Your task to perform on an android device: stop showing notifications on the lock screen Image 0: 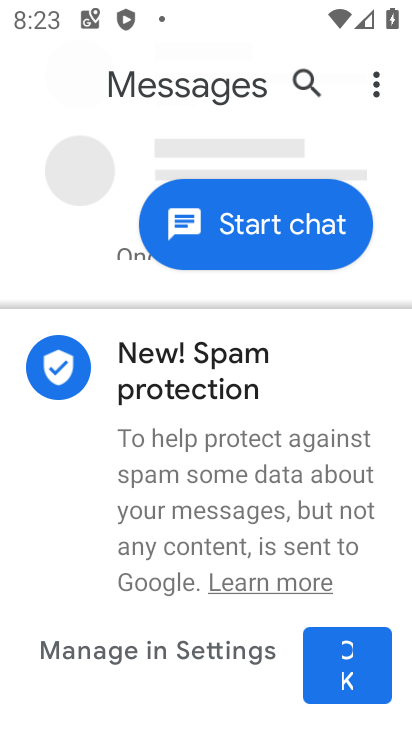
Step 0: press home button
Your task to perform on an android device: stop showing notifications on the lock screen Image 1: 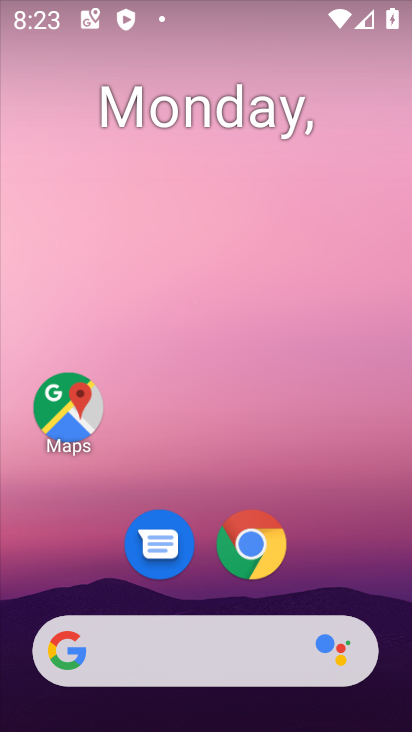
Step 1: drag from (345, 494) to (231, 111)
Your task to perform on an android device: stop showing notifications on the lock screen Image 2: 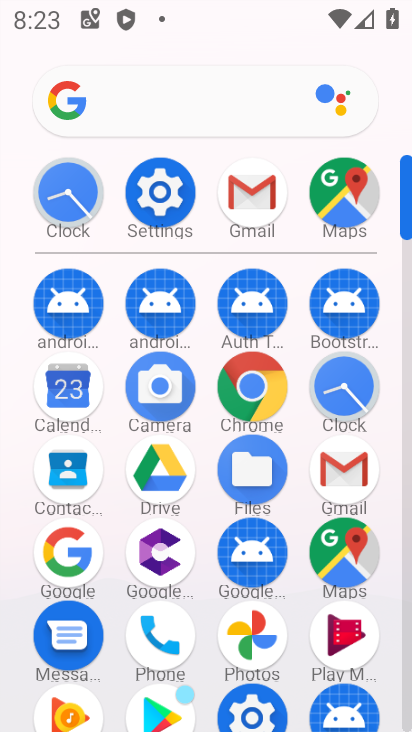
Step 2: click (158, 194)
Your task to perform on an android device: stop showing notifications on the lock screen Image 3: 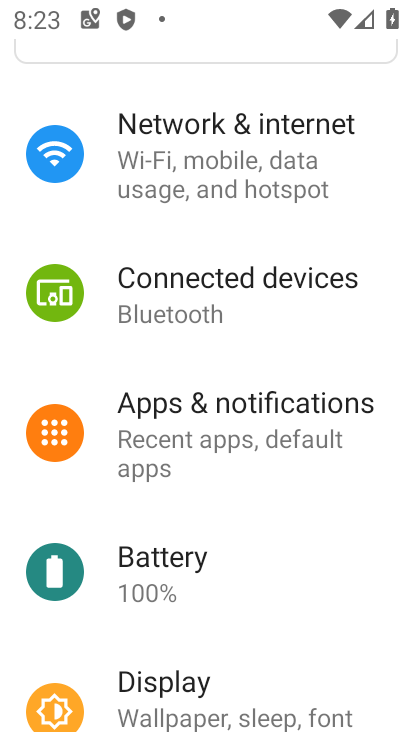
Step 3: click (228, 396)
Your task to perform on an android device: stop showing notifications on the lock screen Image 4: 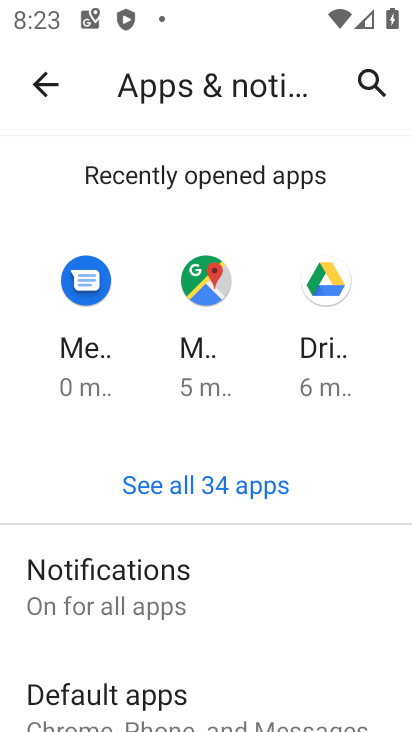
Step 4: drag from (233, 561) to (202, 332)
Your task to perform on an android device: stop showing notifications on the lock screen Image 5: 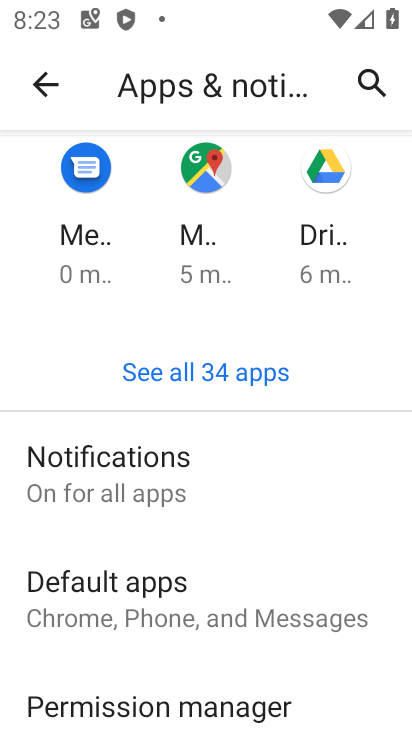
Step 5: click (114, 456)
Your task to perform on an android device: stop showing notifications on the lock screen Image 6: 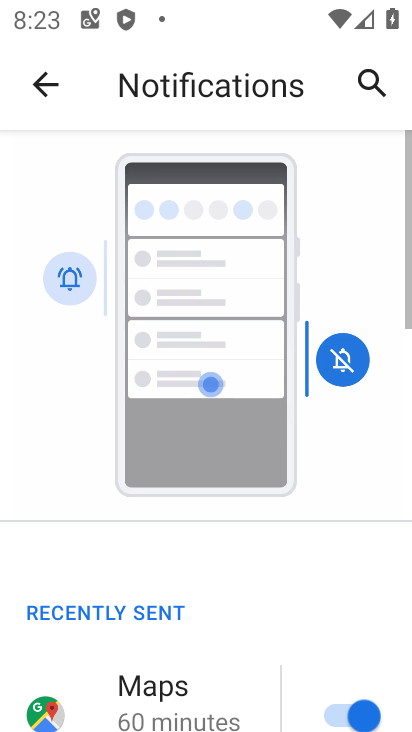
Step 6: drag from (261, 512) to (237, 178)
Your task to perform on an android device: stop showing notifications on the lock screen Image 7: 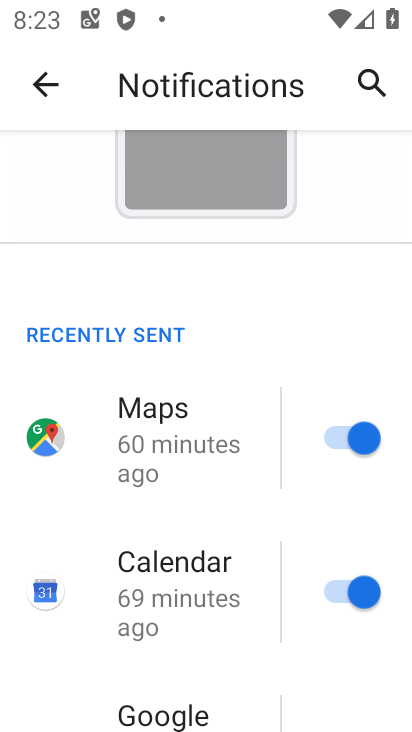
Step 7: drag from (241, 645) to (188, 372)
Your task to perform on an android device: stop showing notifications on the lock screen Image 8: 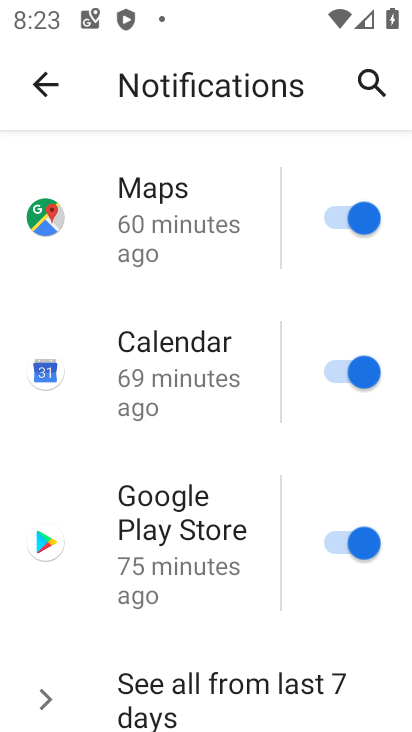
Step 8: drag from (188, 588) to (150, 296)
Your task to perform on an android device: stop showing notifications on the lock screen Image 9: 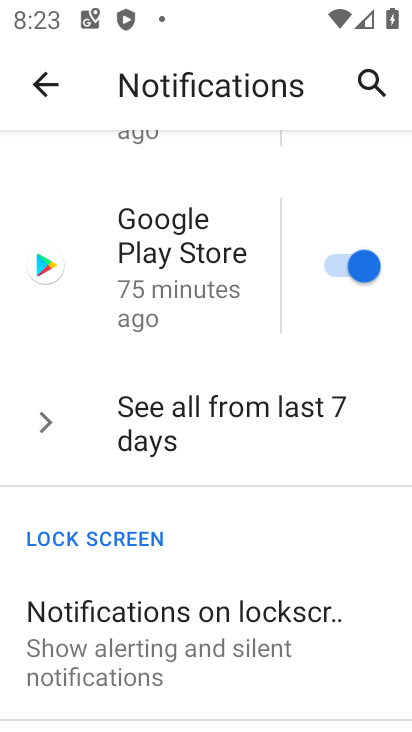
Step 9: click (191, 611)
Your task to perform on an android device: stop showing notifications on the lock screen Image 10: 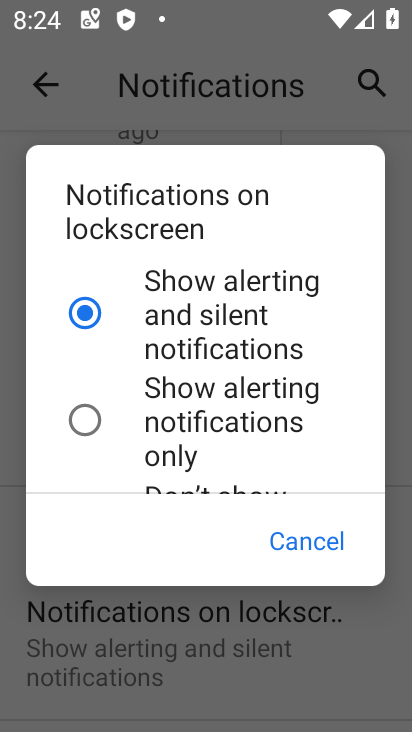
Step 10: drag from (109, 441) to (89, 185)
Your task to perform on an android device: stop showing notifications on the lock screen Image 11: 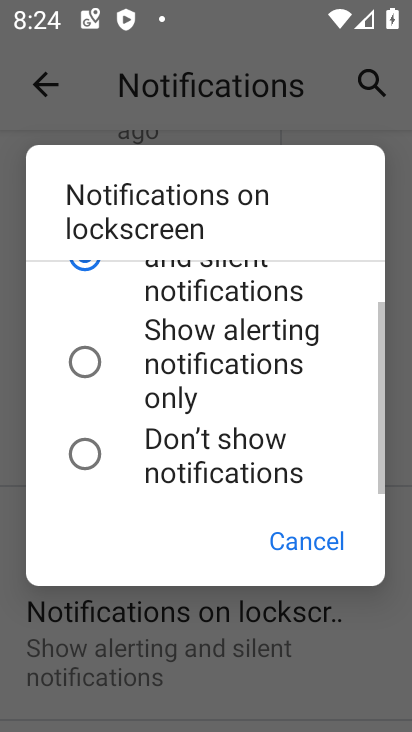
Step 11: click (88, 443)
Your task to perform on an android device: stop showing notifications on the lock screen Image 12: 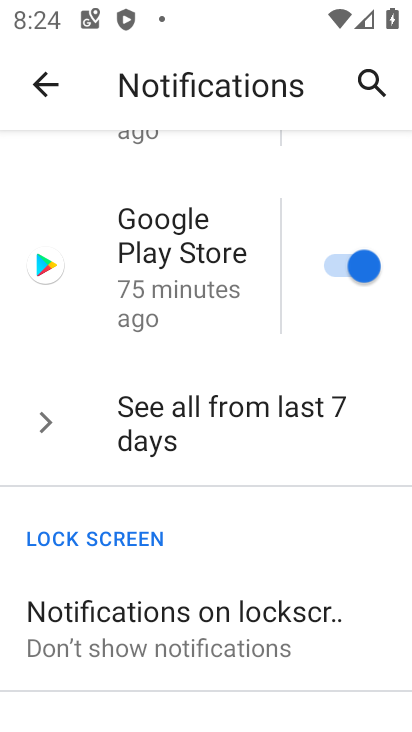
Step 12: task complete